Your task to perform on an android device: check out phone information Image 0: 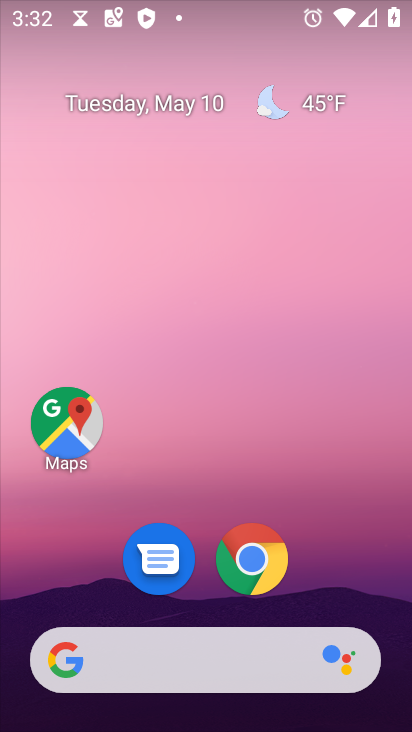
Step 0: drag from (368, 588) to (288, 14)
Your task to perform on an android device: check out phone information Image 1: 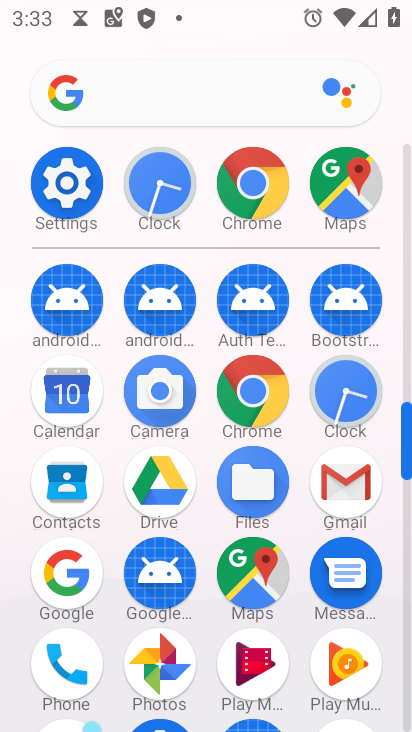
Step 1: click (167, 670)
Your task to perform on an android device: check out phone information Image 2: 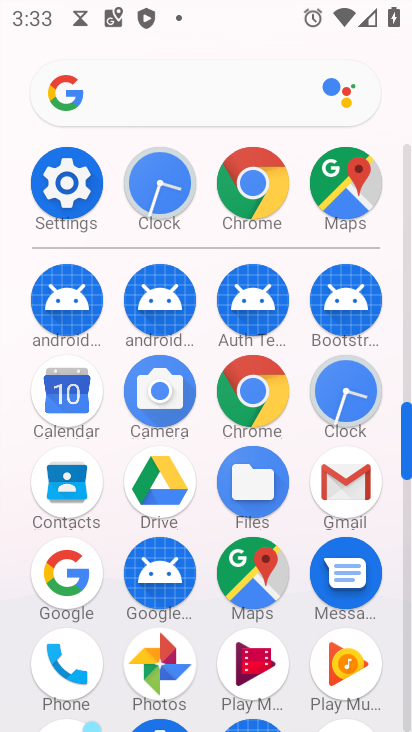
Step 2: click (167, 670)
Your task to perform on an android device: check out phone information Image 3: 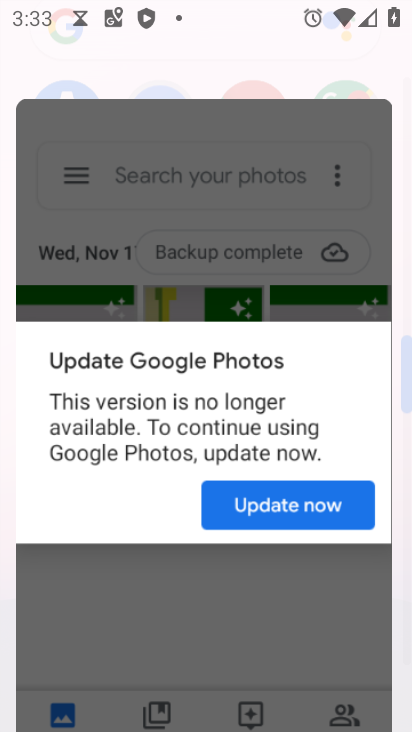
Step 3: click (168, 667)
Your task to perform on an android device: check out phone information Image 4: 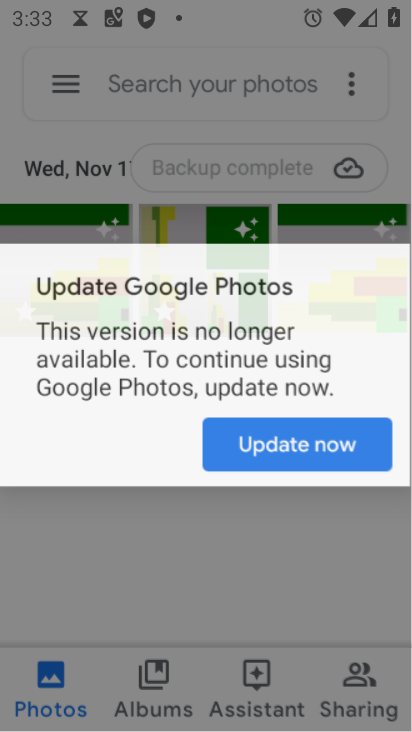
Step 4: click (171, 664)
Your task to perform on an android device: check out phone information Image 5: 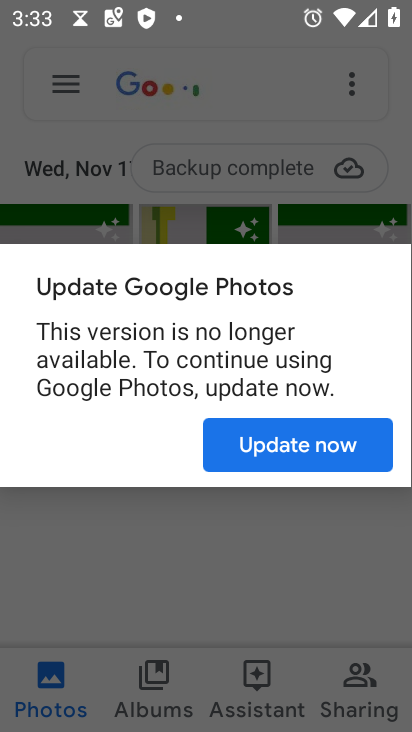
Step 5: click (321, 435)
Your task to perform on an android device: check out phone information Image 6: 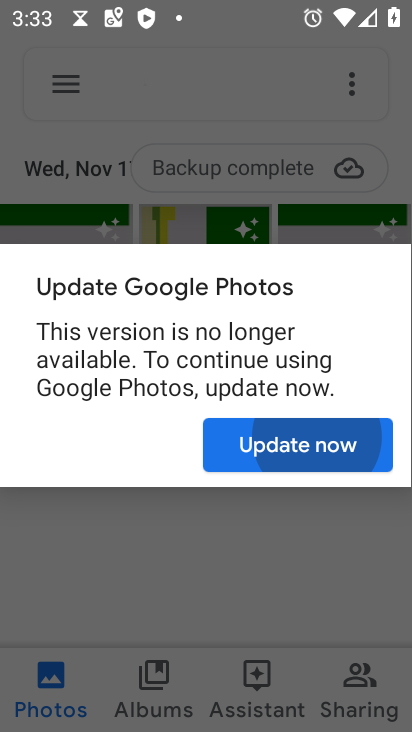
Step 6: click (321, 437)
Your task to perform on an android device: check out phone information Image 7: 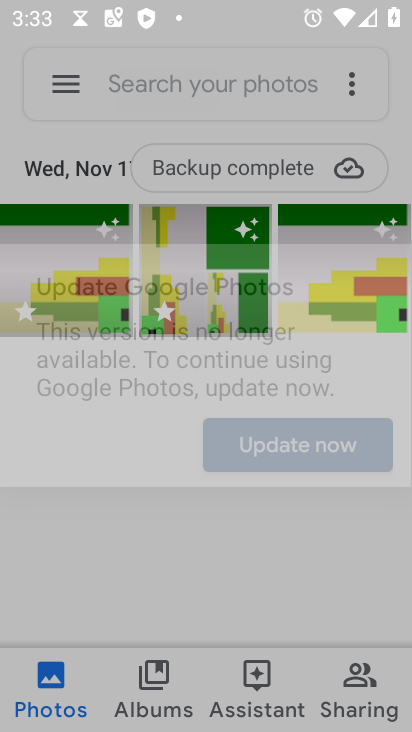
Step 7: click (320, 439)
Your task to perform on an android device: check out phone information Image 8: 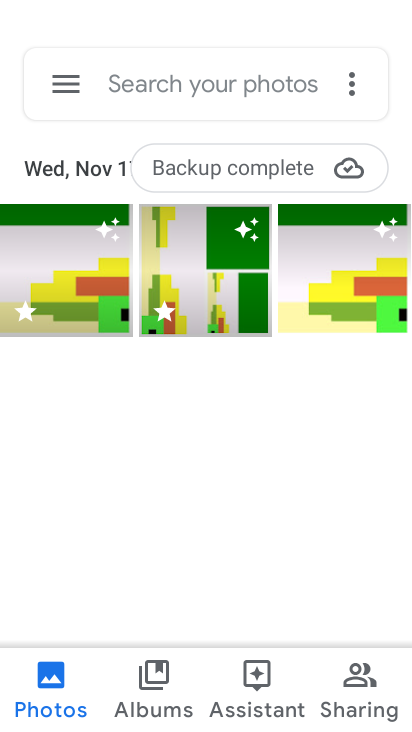
Step 8: click (316, 450)
Your task to perform on an android device: check out phone information Image 9: 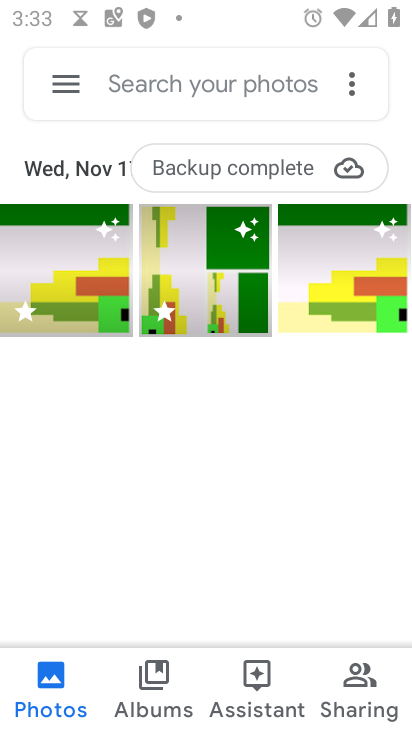
Step 9: click (314, 446)
Your task to perform on an android device: check out phone information Image 10: 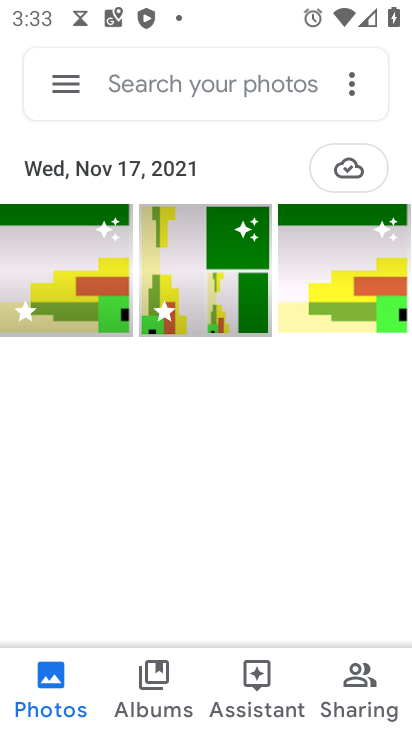
Step 10: press back button
Your task to perform on an android device: check out phone information Image 11: 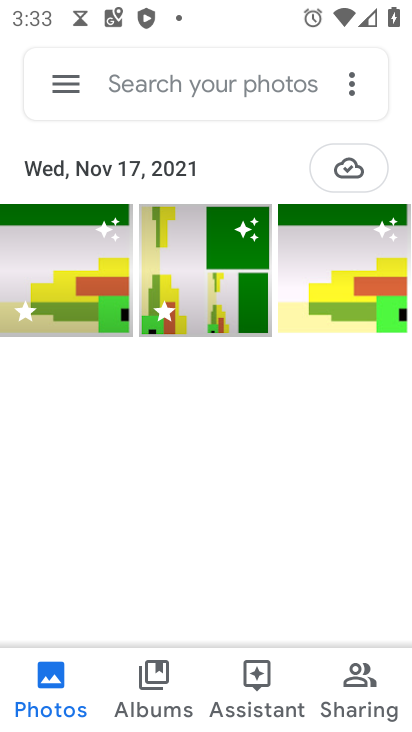
Step 11: press back button
Your task to perform on an android device: check out phone information Image 12: 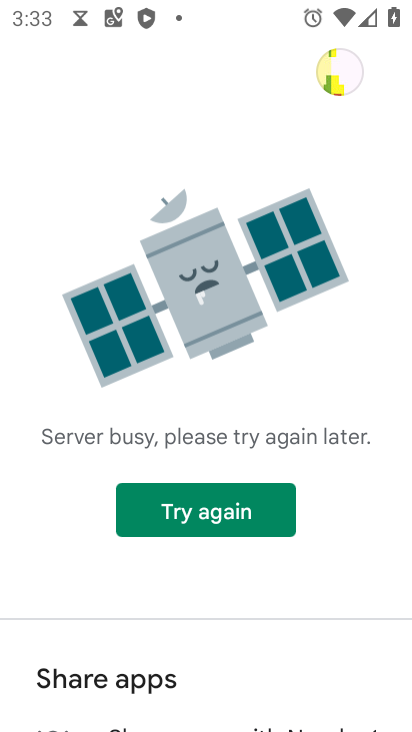
Step 12: press back button
Your task to perform on an android device: check out phone information Image 13: 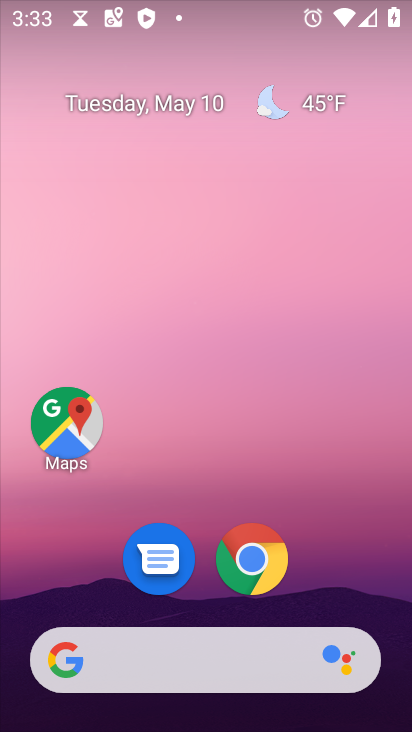
Step 13: press home button
Your task to perform on an android device: check out phone information Image 14: 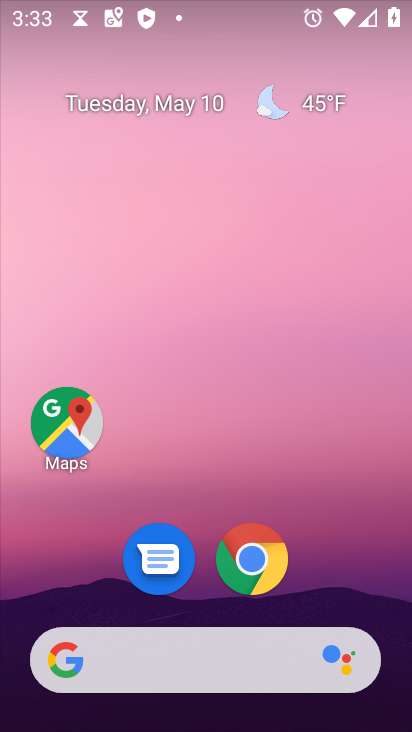
Step 14: drag from (336, 593) to (140, 3)
Your task to perform on an android device: check out phone information Image 15: 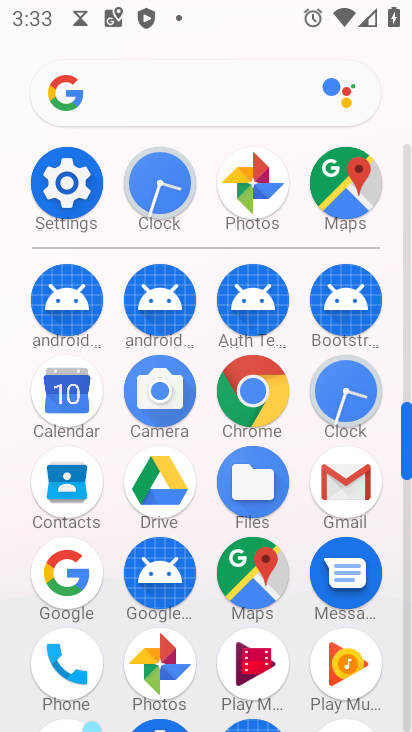
Step 15: click (58, 165)
Your task to perform on an android device: check out phone information Image 16: 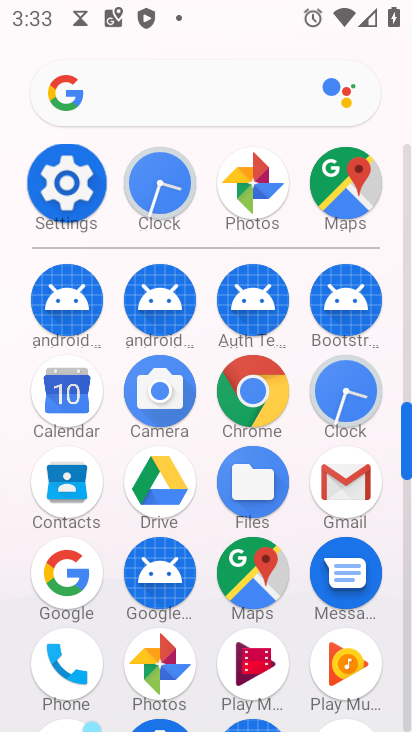
Step 16: click (58, 177)
Your task to perform on an android device: check out phone information Image 17: 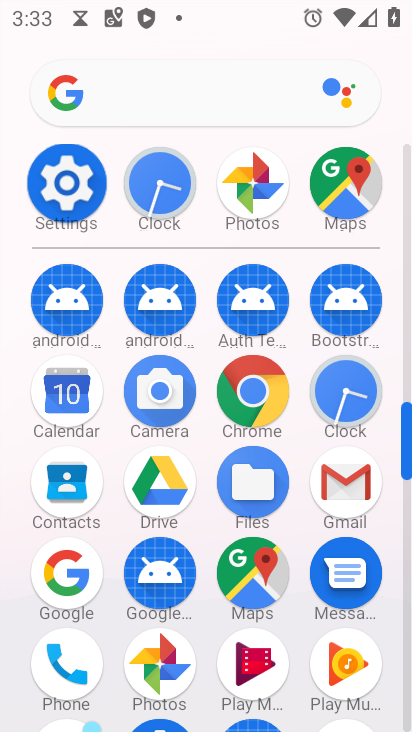
Step 17: click (58, 178)
Your task to perform on an android device: check out phone information Image 18: 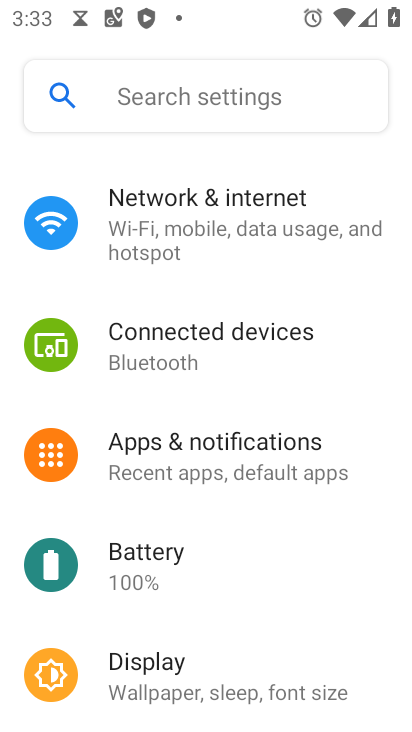
Step 18: click (58, 178)
Your task to perform on an android device: check out phone information Image 19: 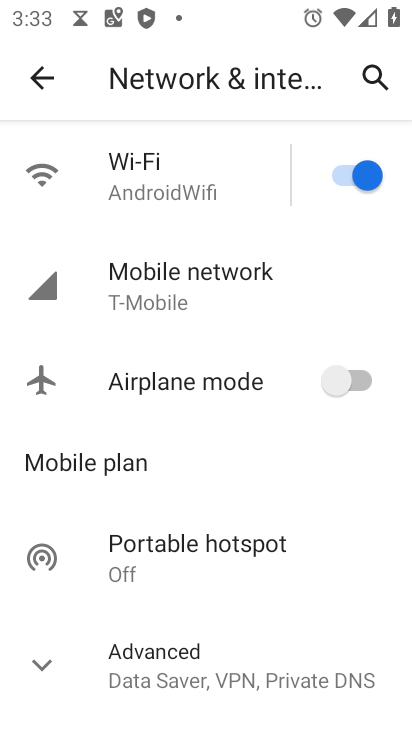
Step 19: click (33, 71)
Your task to perform on an android device: check out phone information Image 20: 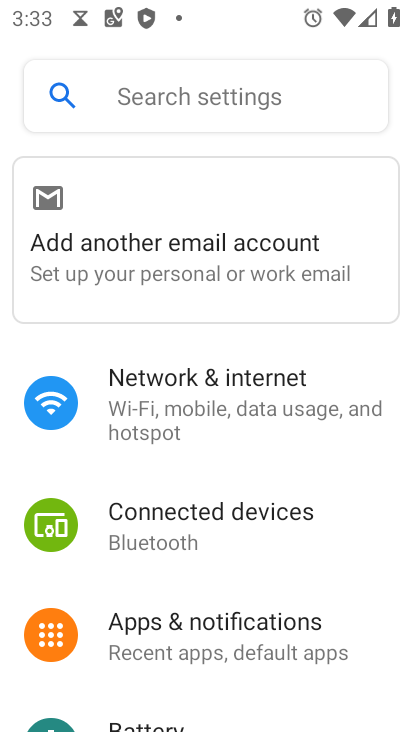
Step 20: drag from (257, 567) to (161, 172)
Your task to perform on an android device: check out phone information Image 21: 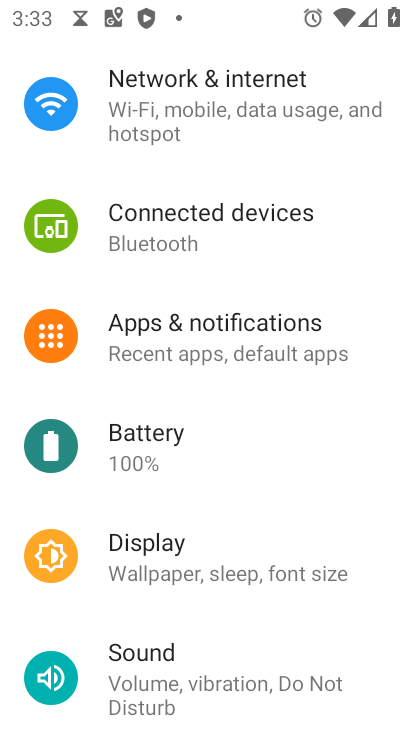
Step 21: drag from (187, 537) to (132, 18)
Your task to perform on an android device: check out phone information Image 22: 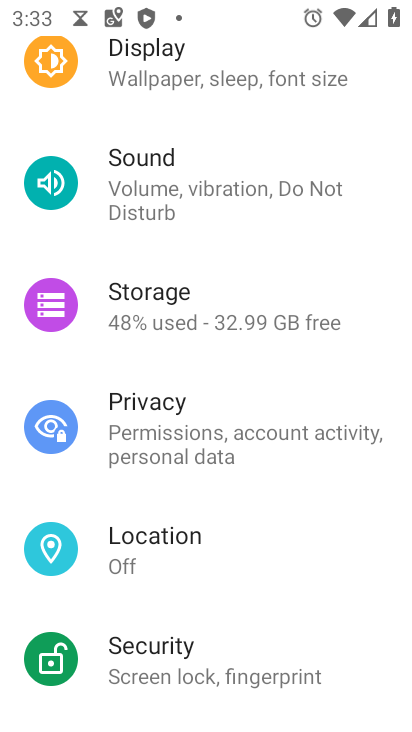
Step 22: drag from (193, 538) to (121, 106)
Your task to perform on an android device: check out phone information Image 23: 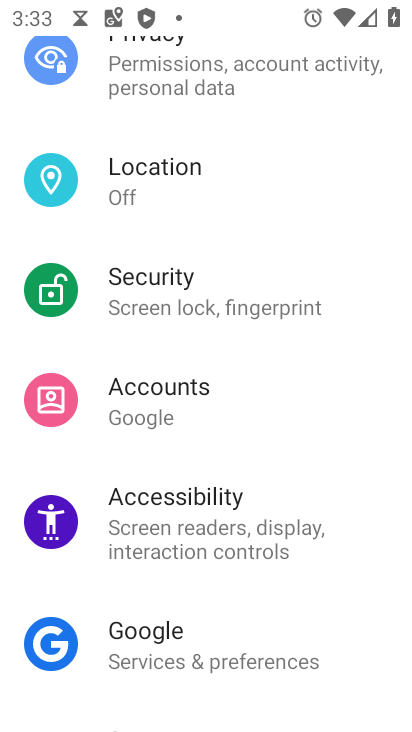
Step 23: drag from (196, 595) to (77, 7)
Your task to perform on an android device: check out phone information Image 24: 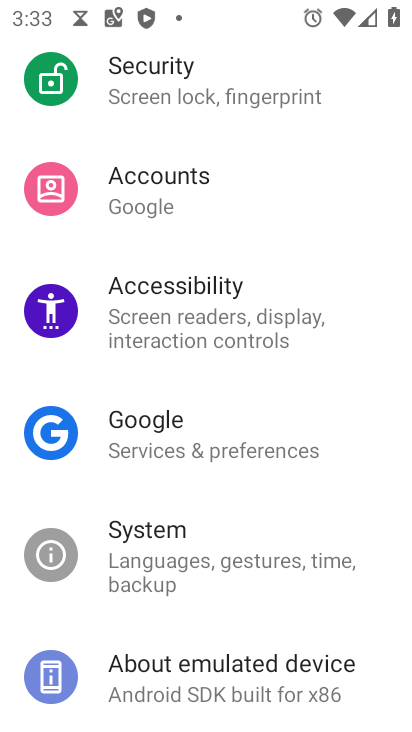
Step 24: drag from (199, 231) to (206, 556)
Your task to perform on an android device: check out phone information Image 25: 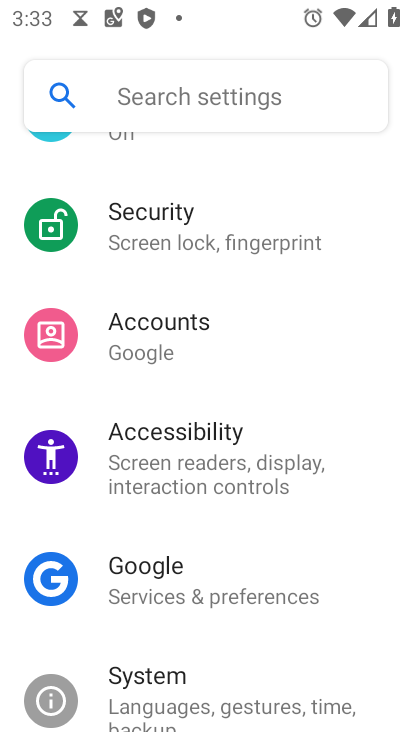
Step 25: drag from (137, 231) to (163, 559)
Your task to perform on an android device: check out phone information Image 26: 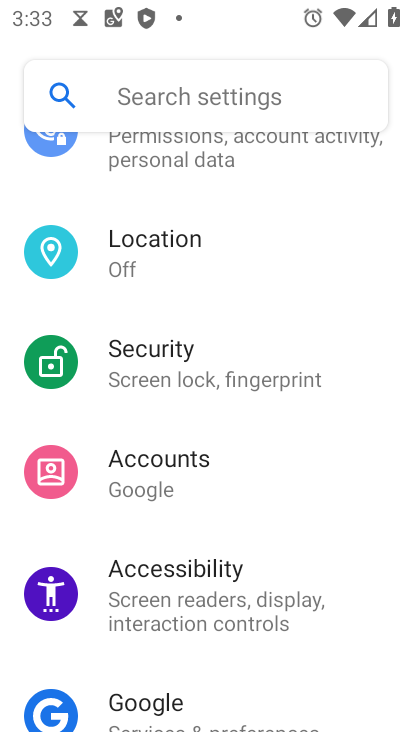
Step 26: drag from (248, 286) to (276, 522)
Your task to perform on an android device: check out phone information Image 27: 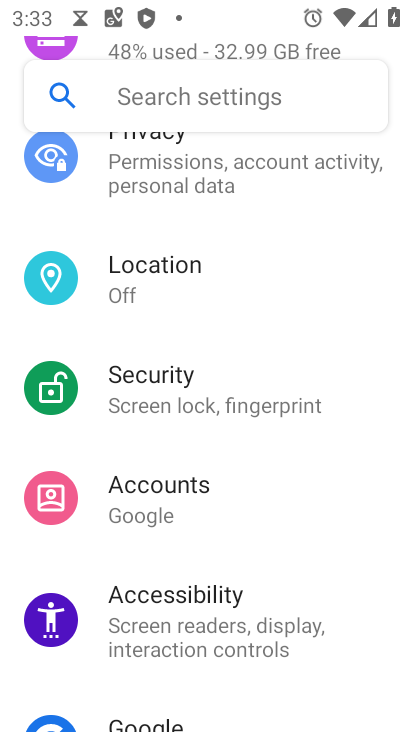
Step 27: drag from (259, 252) to (281, 582)
Your task to perform on an android device: check out phone information Image 28: 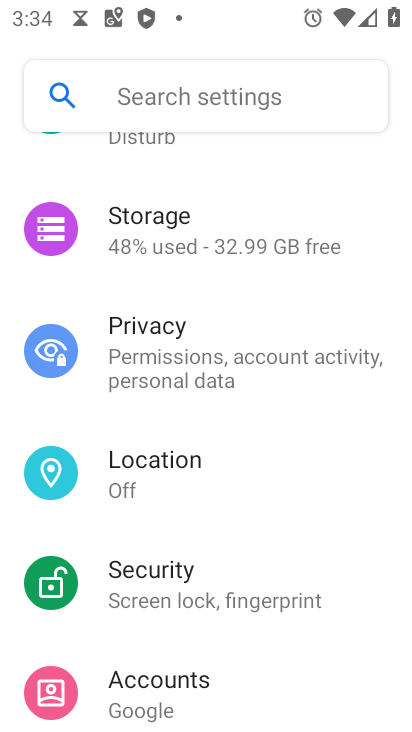
Step 28: click (143, 462)
Your task to perform on an android device: check out phone information Image 29: 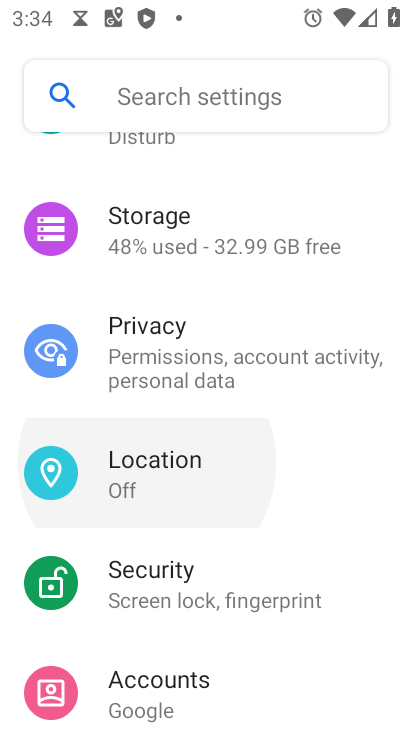
Step 29: click (143, 462)
Your task to perform on an android device: check out phone information Image 30: 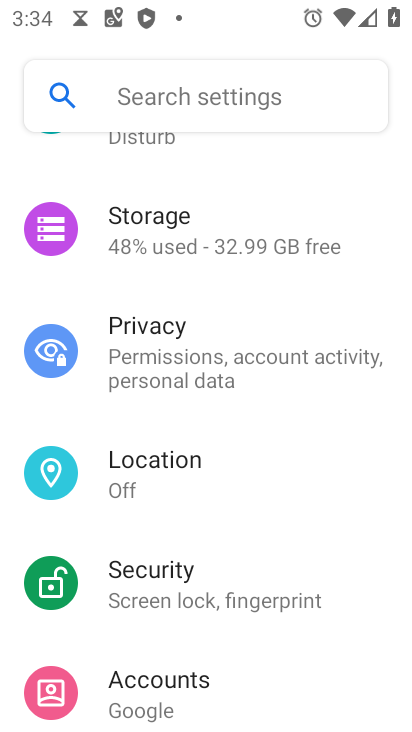
Step 30: click (143, 462)
Your task to perform on an android device: check out phone information Image 31: 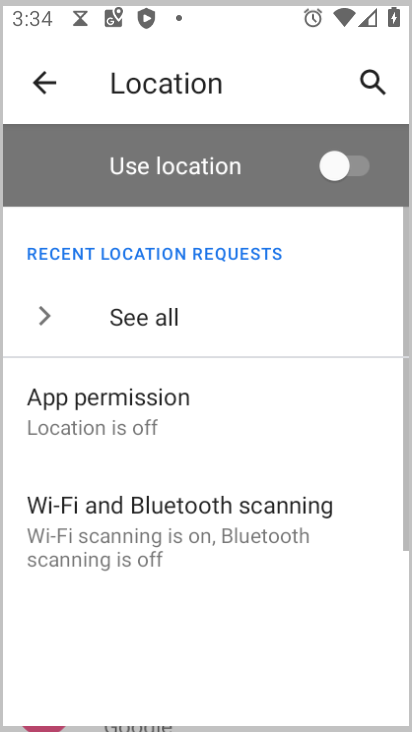
Step 31: click (143, 462)
Your task to perform on an android device: check out phone information Image 32: 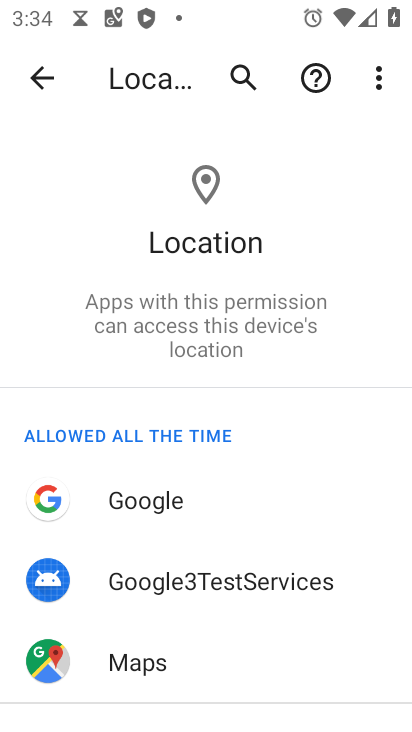
Step 32: task complete